Your task to perform on an android device: see tabs open on other devices in the chrome app Image 0: 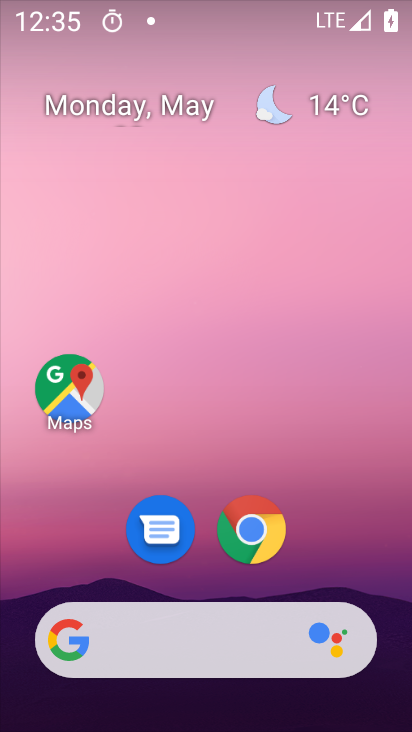
Step 0: drag from (393, 589) to (364, 253)
Your task to perform on an android device: see tabs open on other devices in the chrome app Image 1: 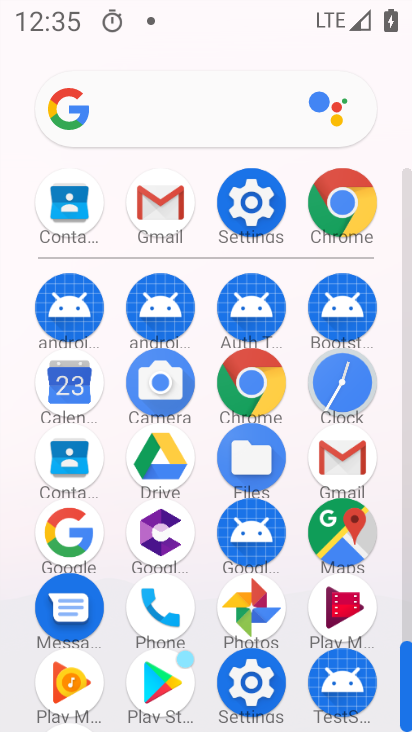
Step 1: click (273, 611)
Your task to perform on an android device: see tabs open on other devices in the chrome app Image 2: 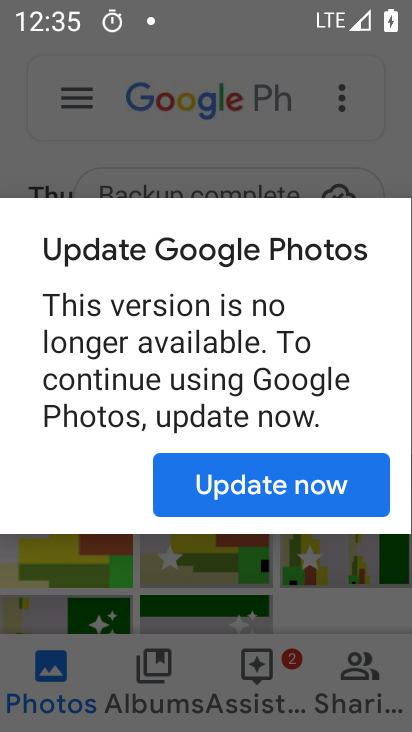
Step 2: click (239, 497)
Your task to perform on an android device: see tabs open on other devices in the chrome app Image 3: 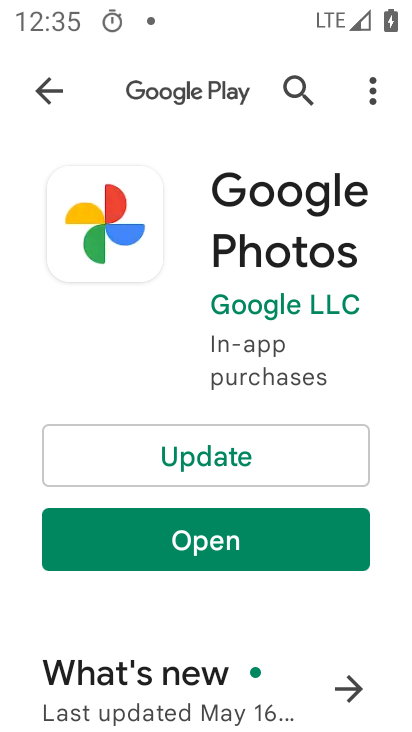
Step 3: click (241, 468)
Your task to perform on an android device: see tabs open on other devices in the chrome app Image 4: 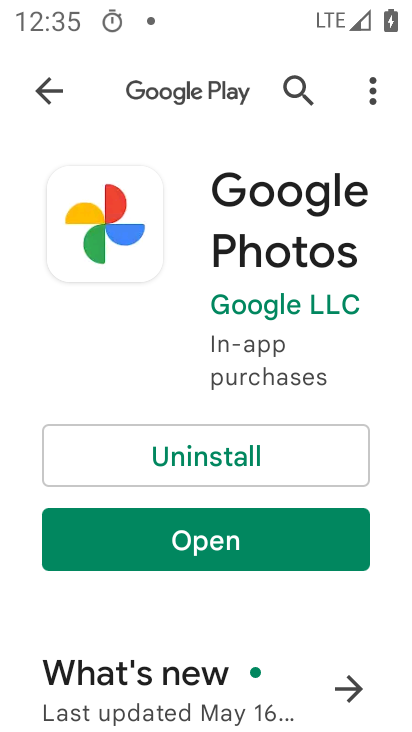
Step 4: click (244, 550)
Your task to perform on an android device: see tabs open on other devices in the chrome app Image 5: 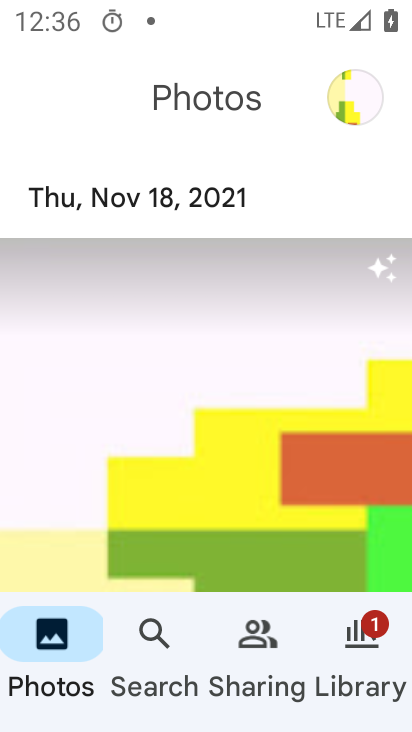
Step 5: click (355, 93)
Your task to perform on an android device: see tabs open on other devices in the chrome app Image 6: 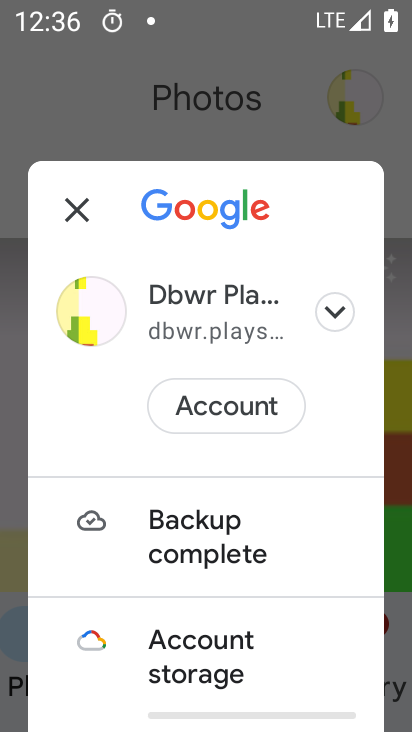
Step 6: task complete